Your task to perform on an android device: turn off improve location accuracy Image 0: 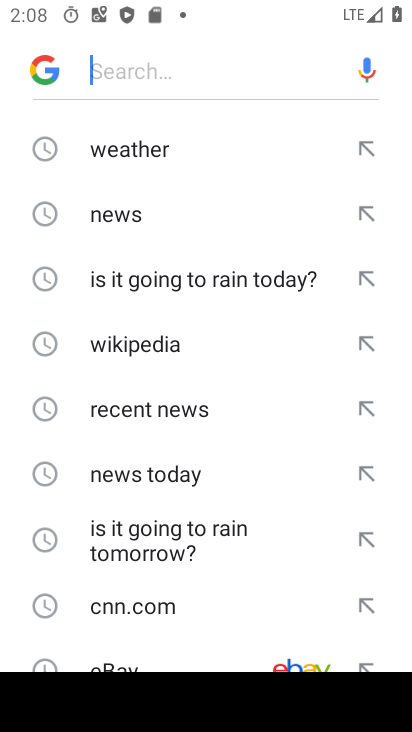
Step 0: press home button
Your task to perform on an android device: turn off improve location accuracy Image 1: 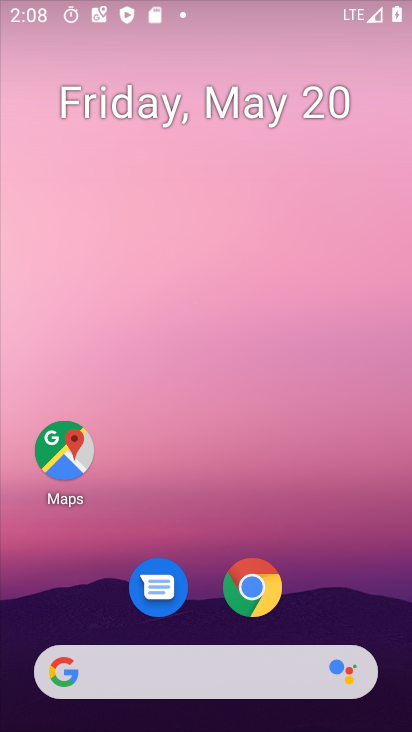
Step 1: drag from (294, 527) to (306, 138)
Your task to perform on an android device: turn off improve location accuracy Image 2: 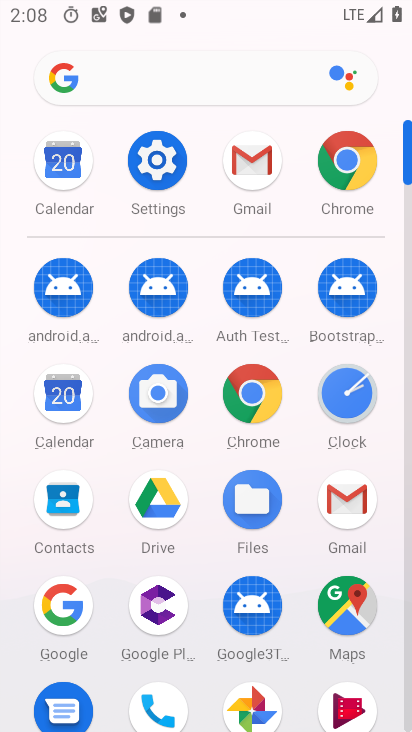
Step 2: click (170, 155)
Your task to perform on an android device: turn off improve location accuracy Image 3: 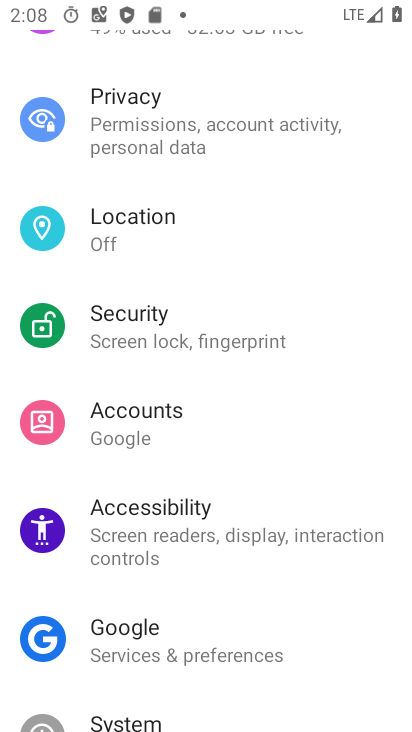
Step 3: click (181, 250)
Your task to perform on an android device: turn off improve location accuracy Image 4: 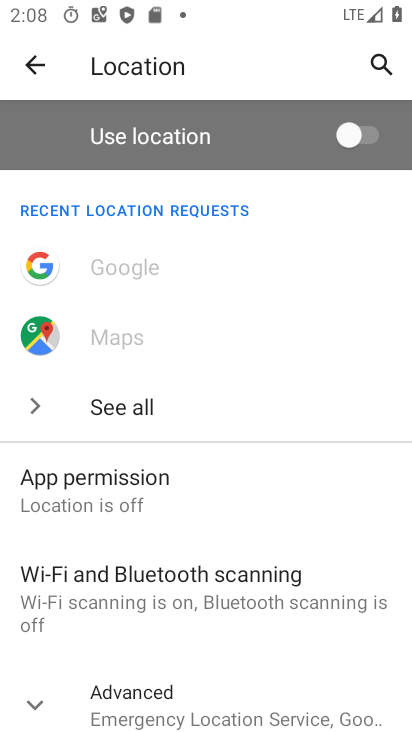
Step 4: drag from (208, 614) to (285, 178)
Your task to perform on an android device: turn off improve location accuracy Image 5: 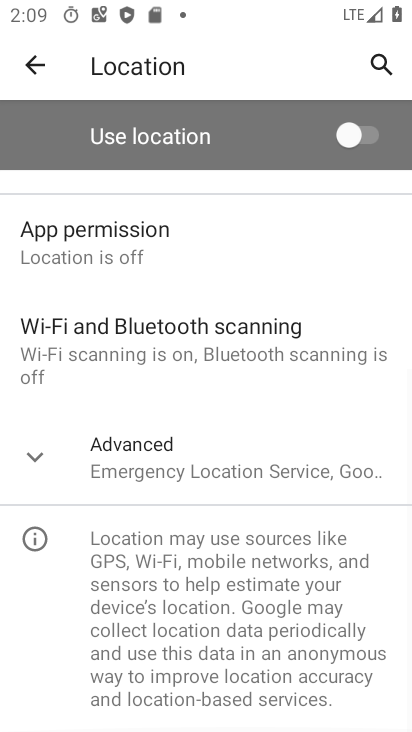
Step 5: click (189, 472)
Your task to perform on an android device: turn off improve location accuracy Image 6: 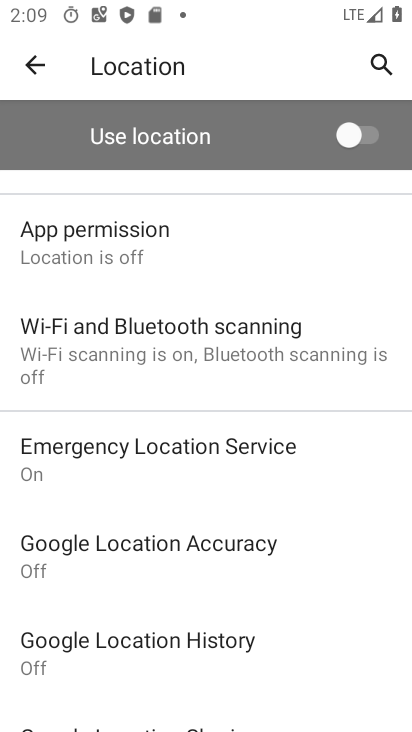
Step 6: drag from (297, 581) to (306, 262)
Your task to perform on an android device: turn off improve location accuracy Image 7: 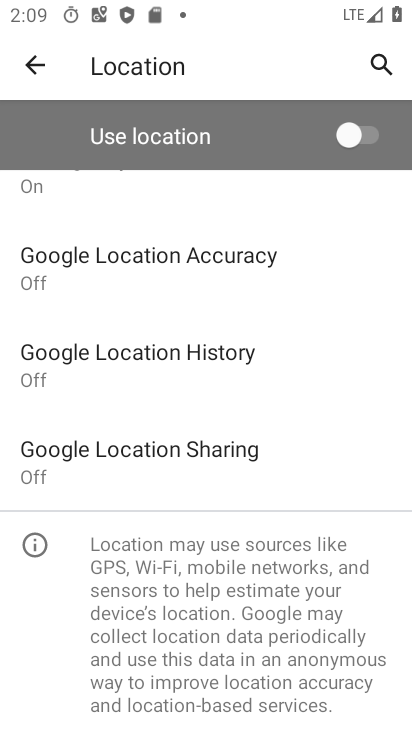
Step 7: click (236, 251)
Your task to perform on an android device: turn off improve location accuracy Image 8: 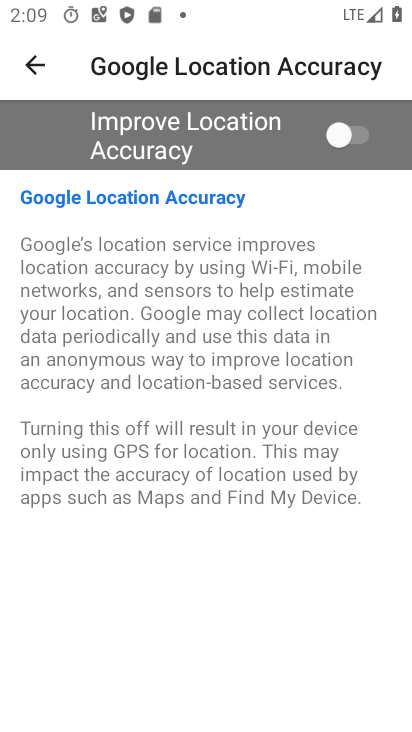
Step 8: task complete